Your task to perform on an android device: turn on data saver in the chrome app Image 0: 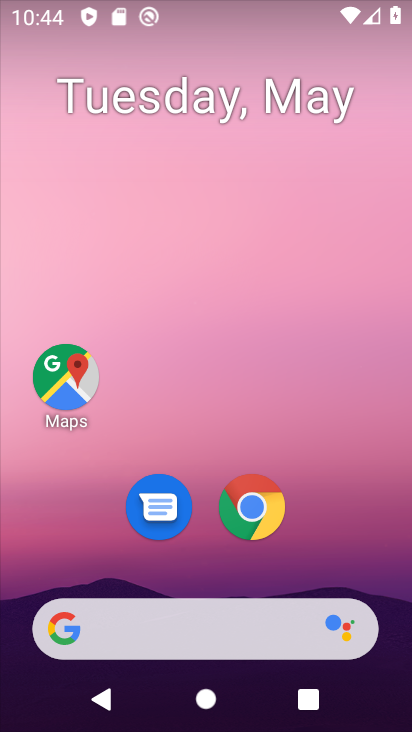
Step 0: drag from (209, 490) to (151, 250)
Your task to perform on an android device: turn on data saver in the chrome app Image 1: 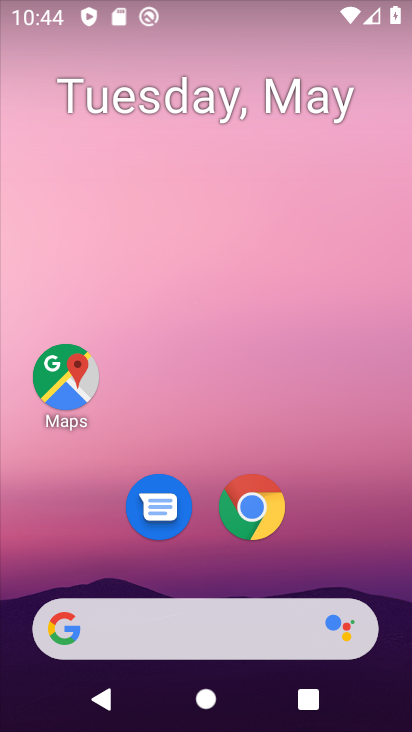
Step 1: drag from (256, 359) to (237, 292)
Your task to perform on an android device: turn on data saver in the chrome app Image 2: 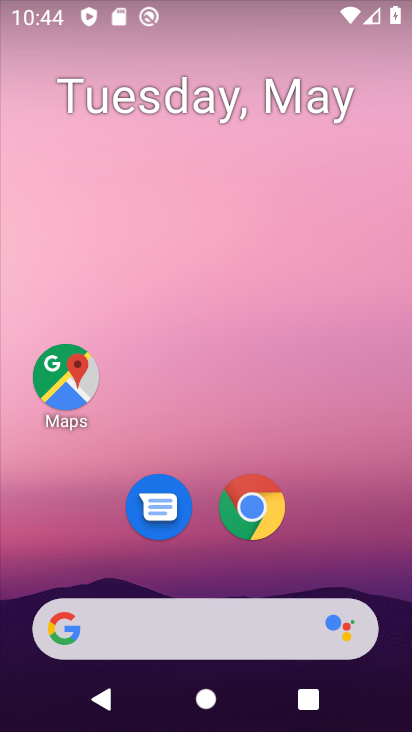
Step 2: drag from (247, 695) to (166, 296)
Your task to perform on an android device: turn on data saver in the chrome app Image 3: 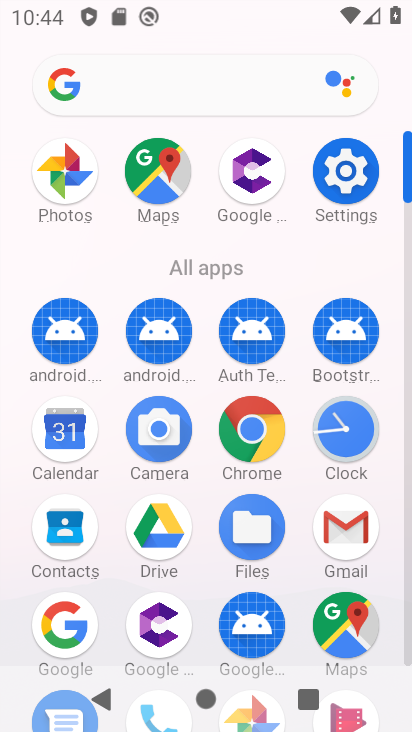
Step 3: click (251, 438)
Your task to perform on an android device: turn on data saver in the chrome app Image 4: 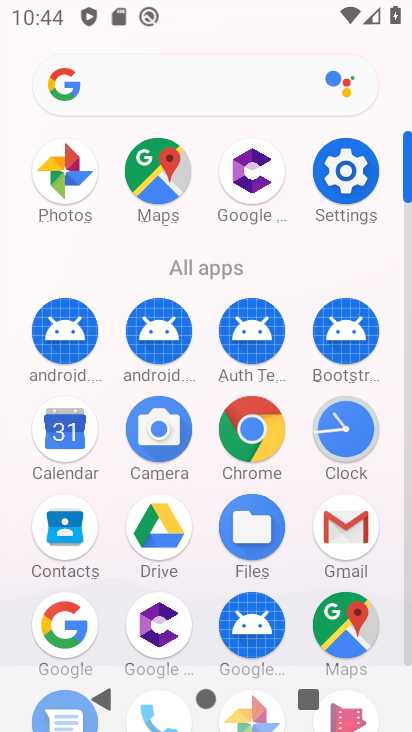
Step 4: click (251, 438)
Your task to perform on an android device: turn on data saver in the chrome app Image 5: 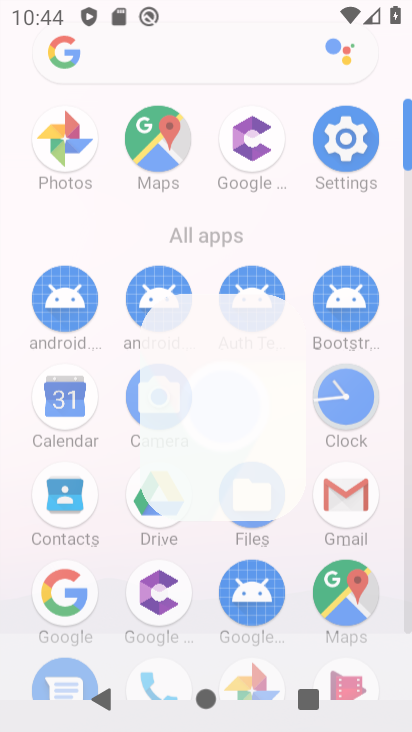
Step 5: click (252, 437)
Your task to perform on an android device: turn on data saver in the chrome app Image 6: 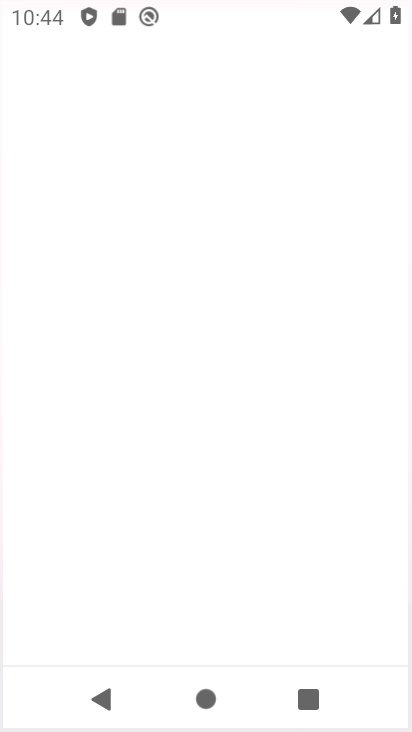
Step 6: click (252, 437)
Your task to perform on an android device: turn on data saver in the chrome app Image 7: 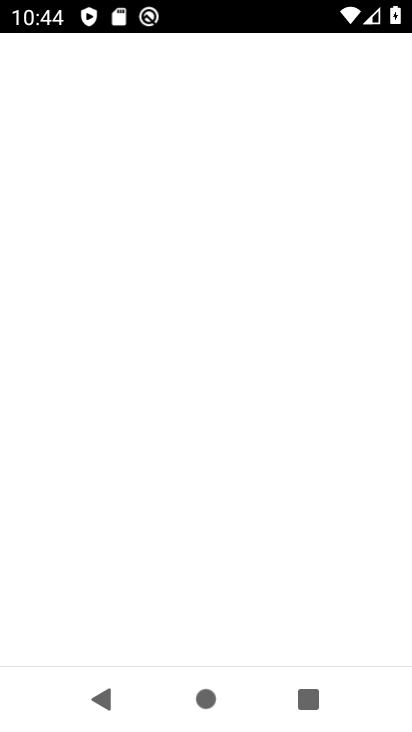
Step 7: click (252, 435)
Your task to perform on an android device: turn on data saver in the chrome app Image 8: 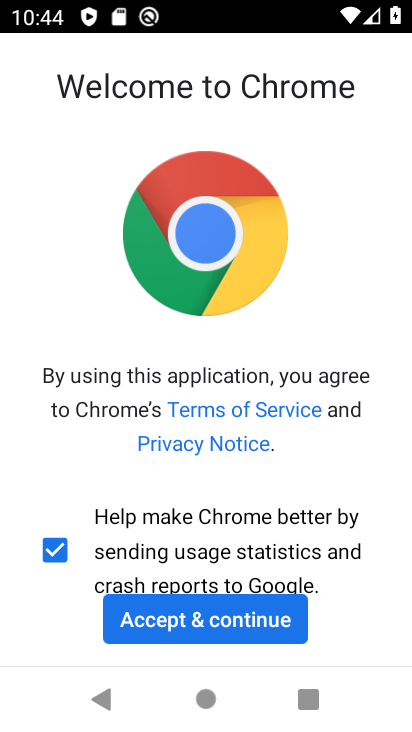
Step 8: click (209, 615)
Your task to perform on an android device: turn on data saver in the chrome app Image 9: 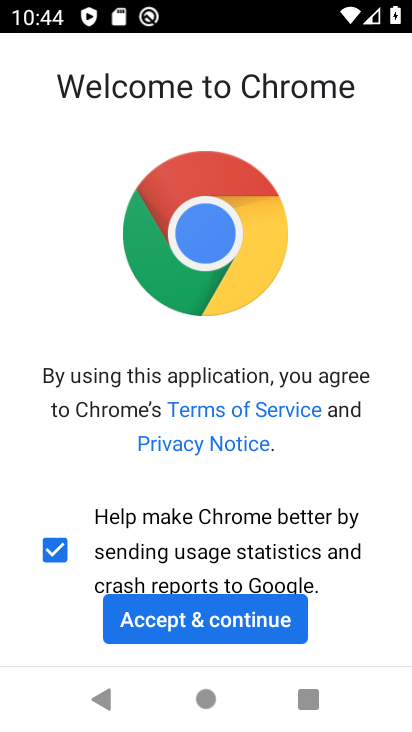
Step 9: click (207, 617)
Your task to perform on an android device: turn on data saver in the chrome app Image 10: 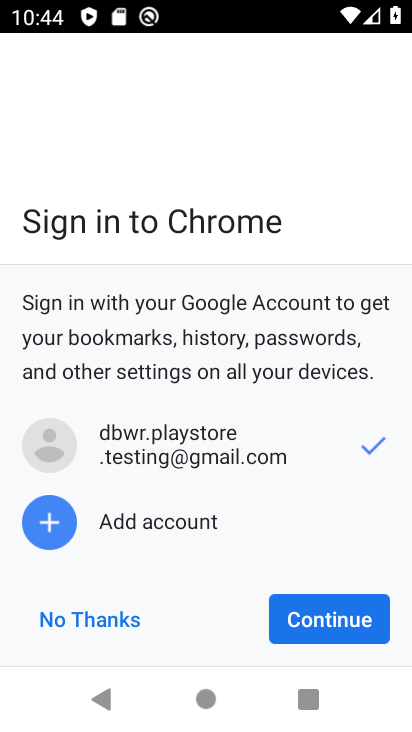
Step 10: click (329, 603)
Your task to perform on an android device: turn on data saver in the chrome app Image 11: 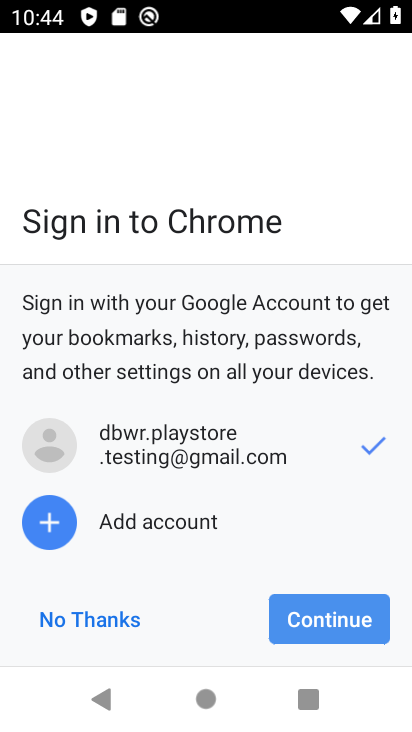
Step 11: click (332, 614)
Your task to perform on an android device: turn on data saver in the chrome app Image 12: 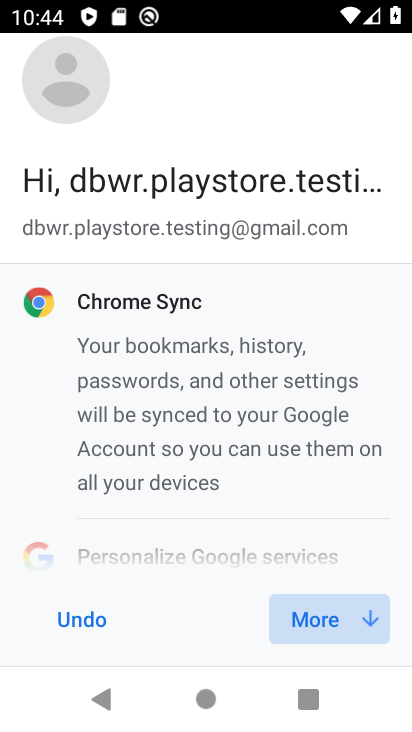
Step 12: click (332, 614)
Your task to perform on an android device: turn on data saver in the chrome app Image 13: 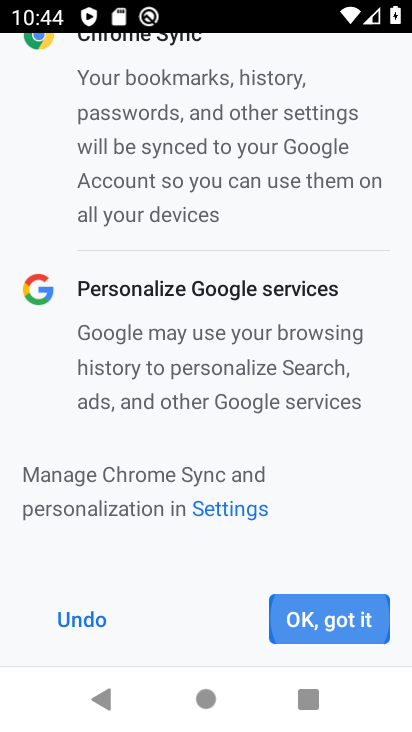
Step 13: click (332, 614)
Your task to perform on an android device: turn on data saver in the chrome app Image 14: 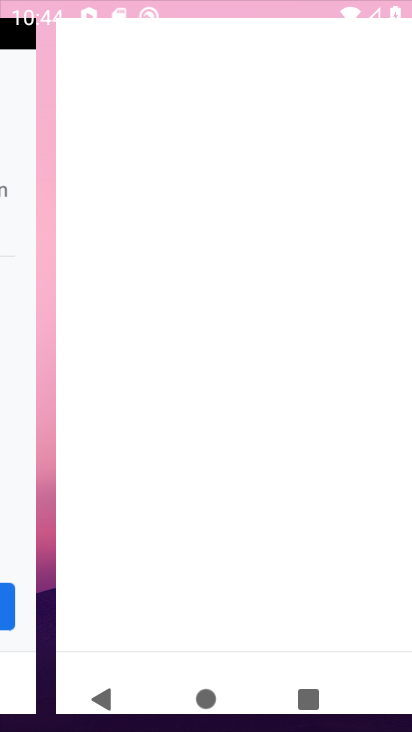
Step 14: click (332, 614)
Your task to perform on an android device: turn on data saver in the chrome app Image 15: 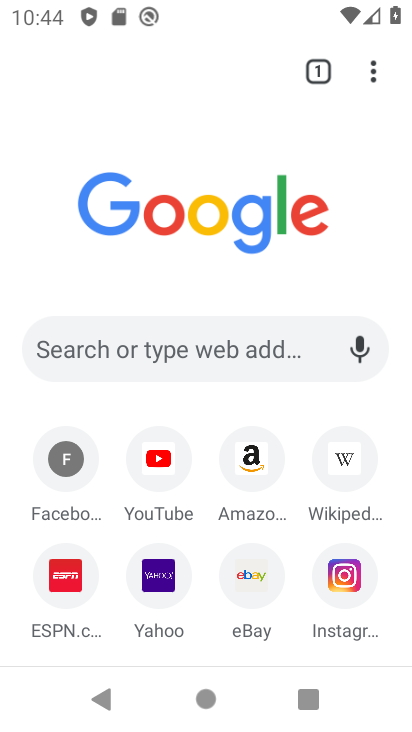
Step 15: drag from (372, 78) to (125, 501)
Your task to perform on an android device: turn on data saver in the chrome app Image 16: 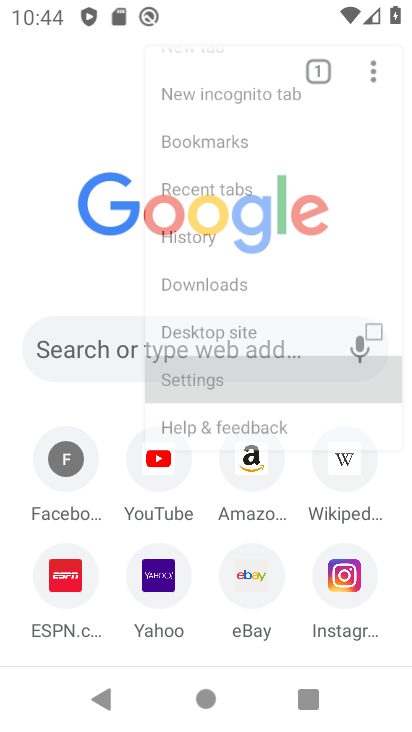
Step 16: click (126, 491)
Your task to perform on an android device: turn on data saver in the chrome app Image 17: 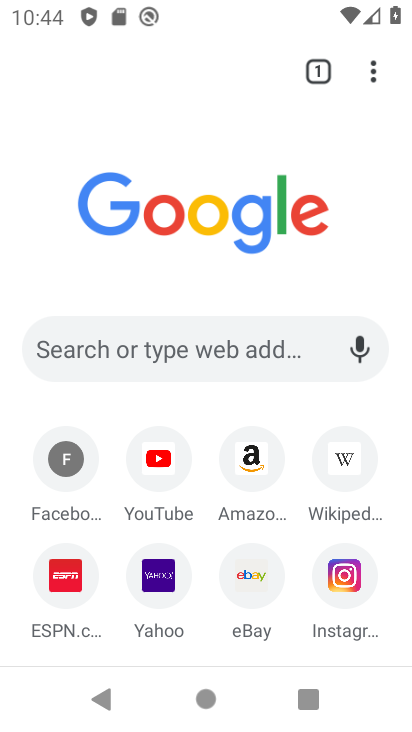
Step 17: click (126, 491)
Your task to perform on an android device: turn on data saver in the chrome app Image 18: 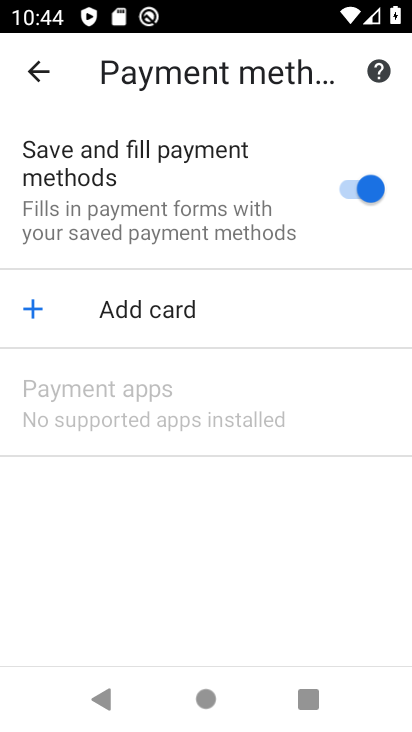
Step 18: click (32, 66)
Your task to perform on an android device: turn on data saver in the chrome app Image 19: 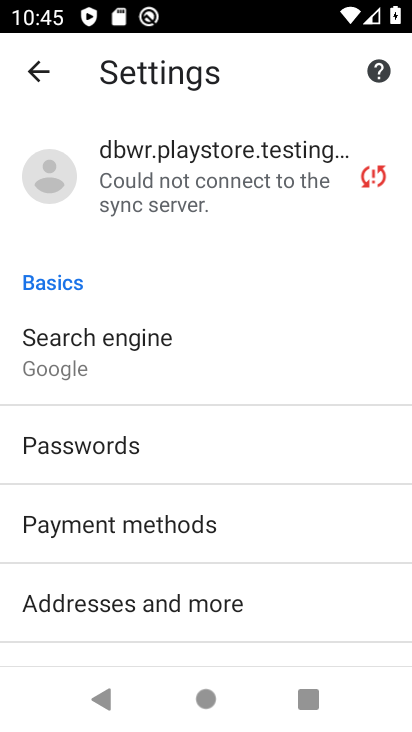
Step 19: click (126, 282)
Your task to perform on an android device: turn on data saver in the chrome app Image 20: 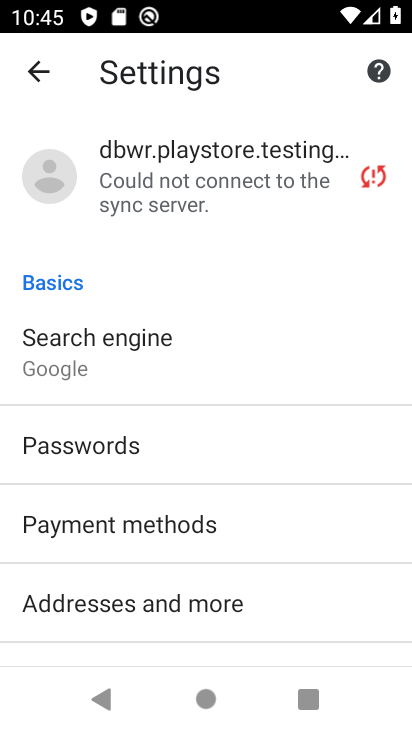
Step 20: drag from (148, 408) to (146, 152)
Your task to perform on an android device: turn on data saver in the chrome app Image 21: 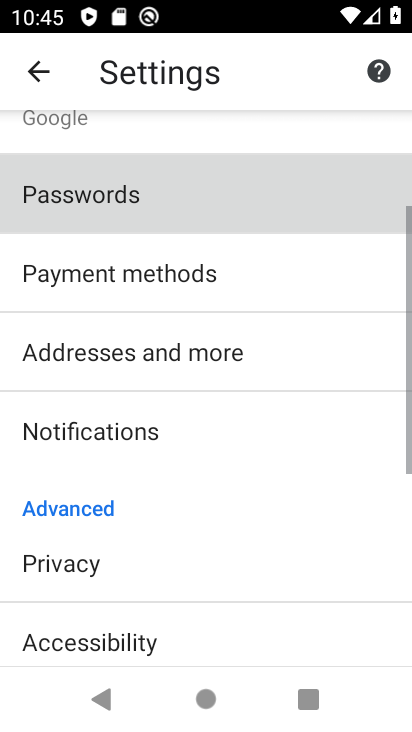
Step 21: drag from (154, 429) to (154, 91)
Your task to perform on an android device: turn on data saver in the chrome app Image 22: 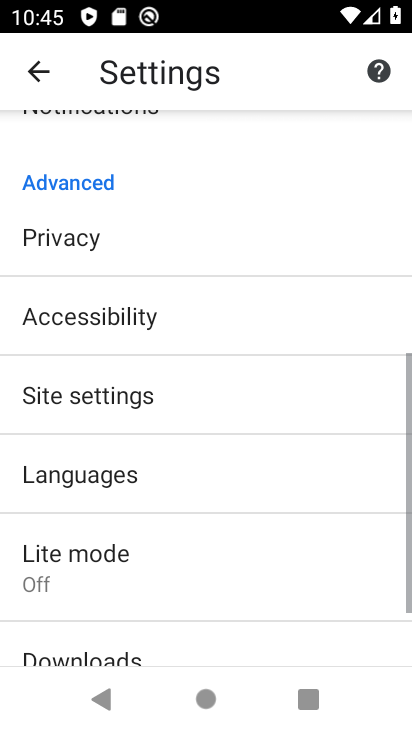
Step 22: drag from (147, 434) to (145, 151)
Your task to perform on an android device: turn on data saver in the chrome app Image 23: 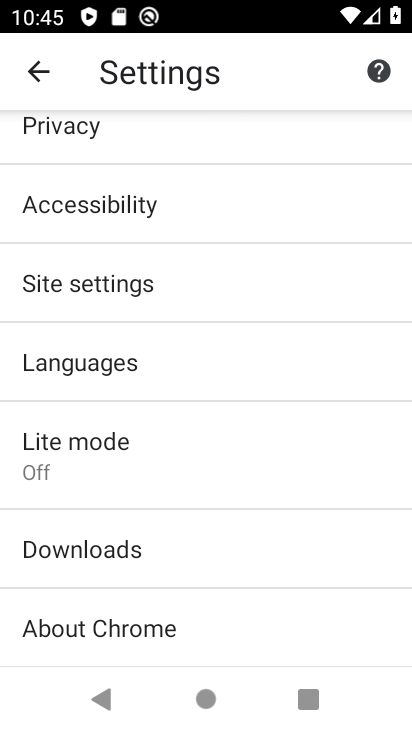
Step 23: click (66, 440)
Your task to perform on an android device: turn on data saver in the chrome app Image 24: 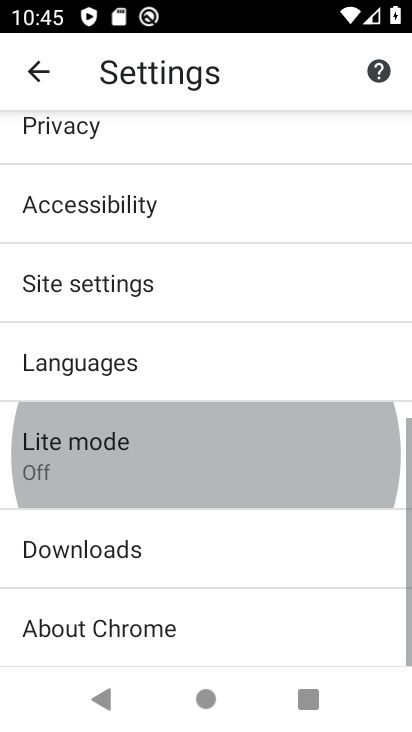
Step 24: click (66, 440)
Your task to perform on an android device: turn on data saver in the chrome app Image 25: 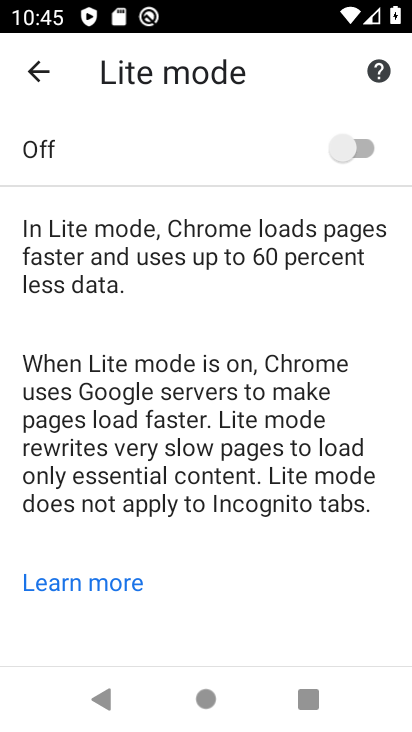
Step 25: click (346, 151)
Your task to perform on an android device: turn on data saver in the chrome app Image 26: 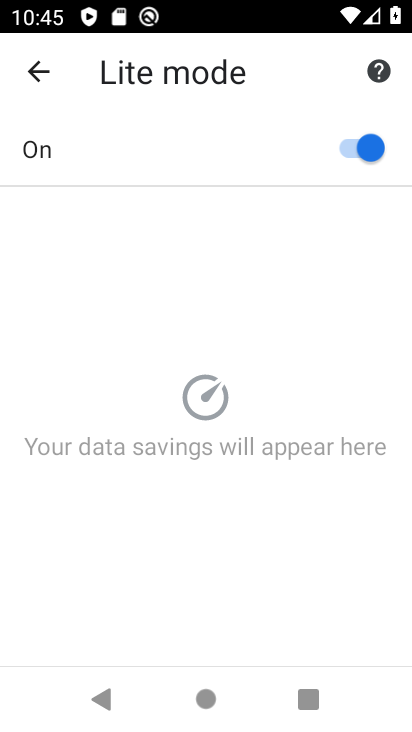
Step 26: task complete